Your task to perform on an android device: open app "Adobe Acrobat Reader" (install if not already installed) and go to login screen Image 0: 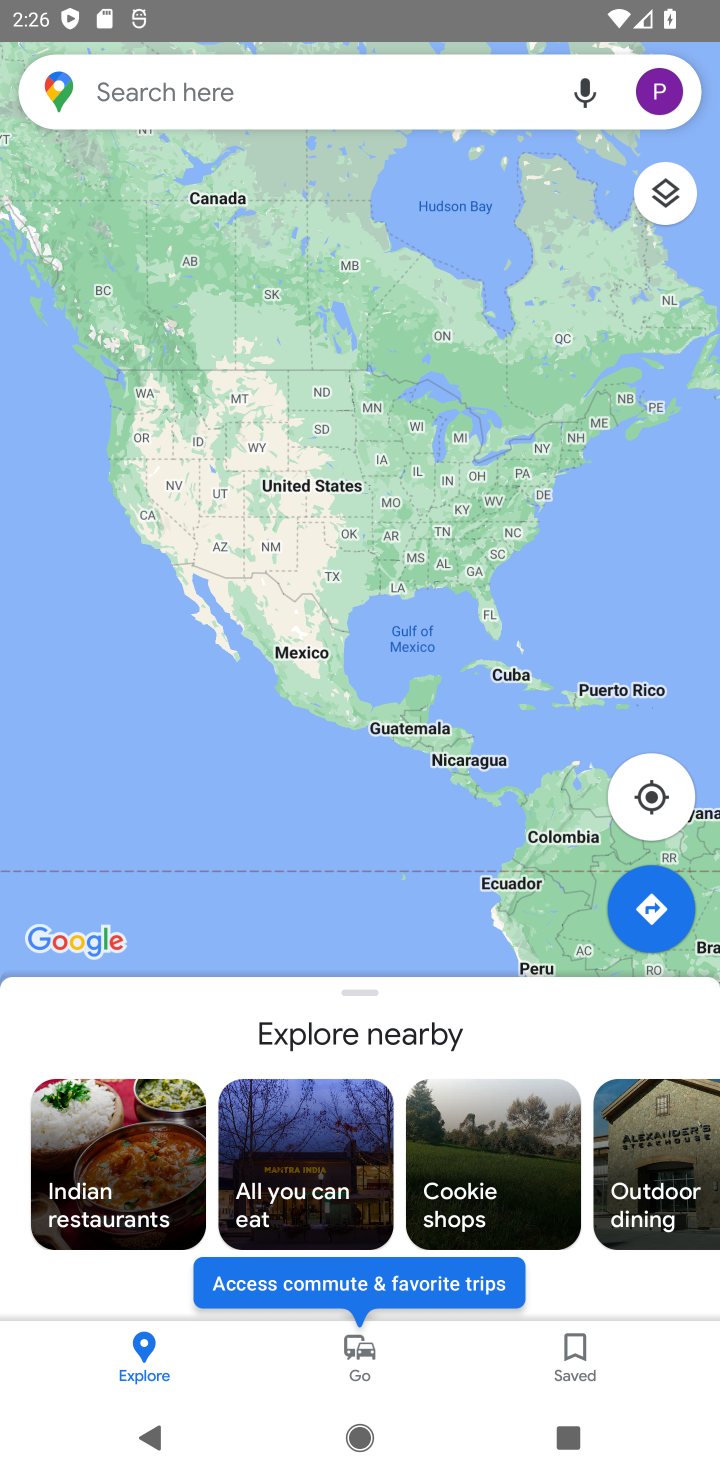
Step 0: press home button
Your task to perform on an android device: open app "Adobe Acrobat Reader" (install if not already installed) and go to login screen Image 1: 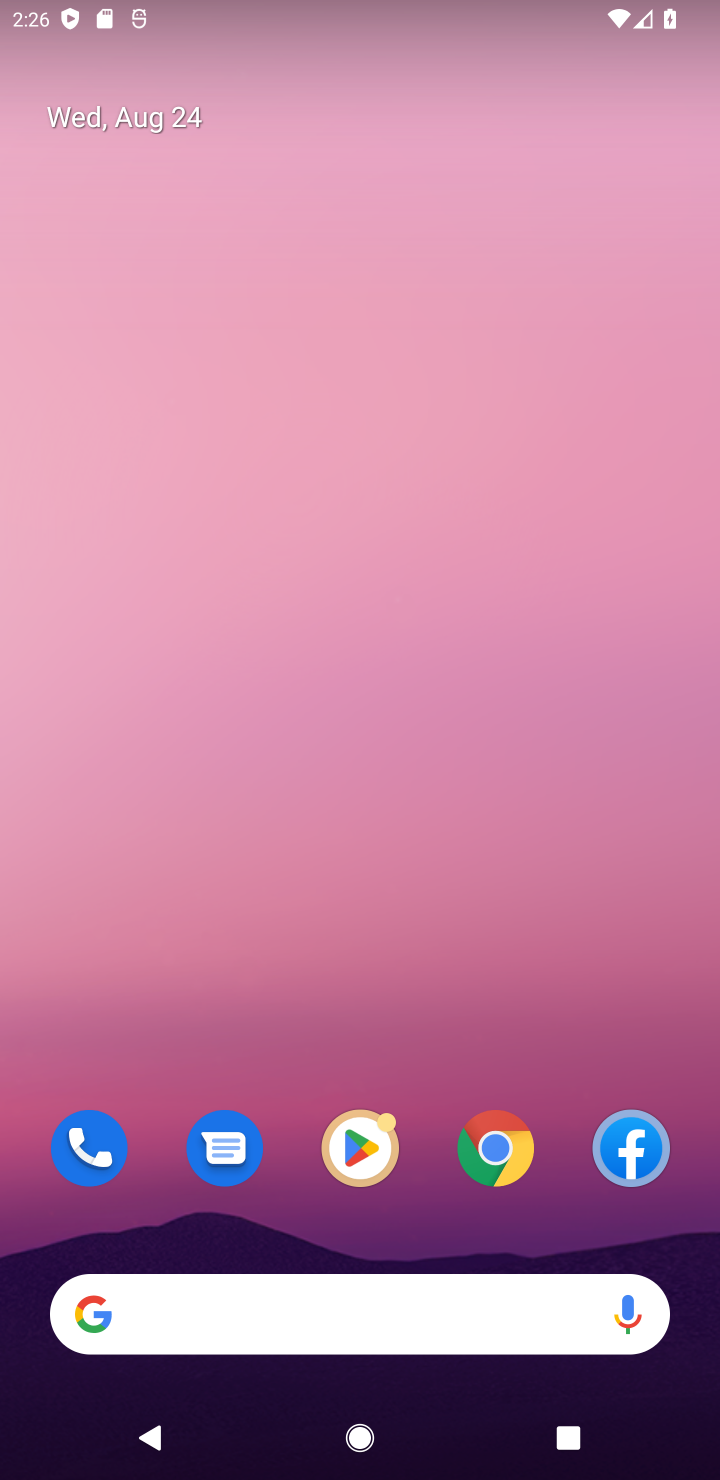
Step 1: click (324, 1178)
Your task to perform on an android device: open app "Adobe Acrobat Reader" (install if not already installed) and go to login screen Image 2: 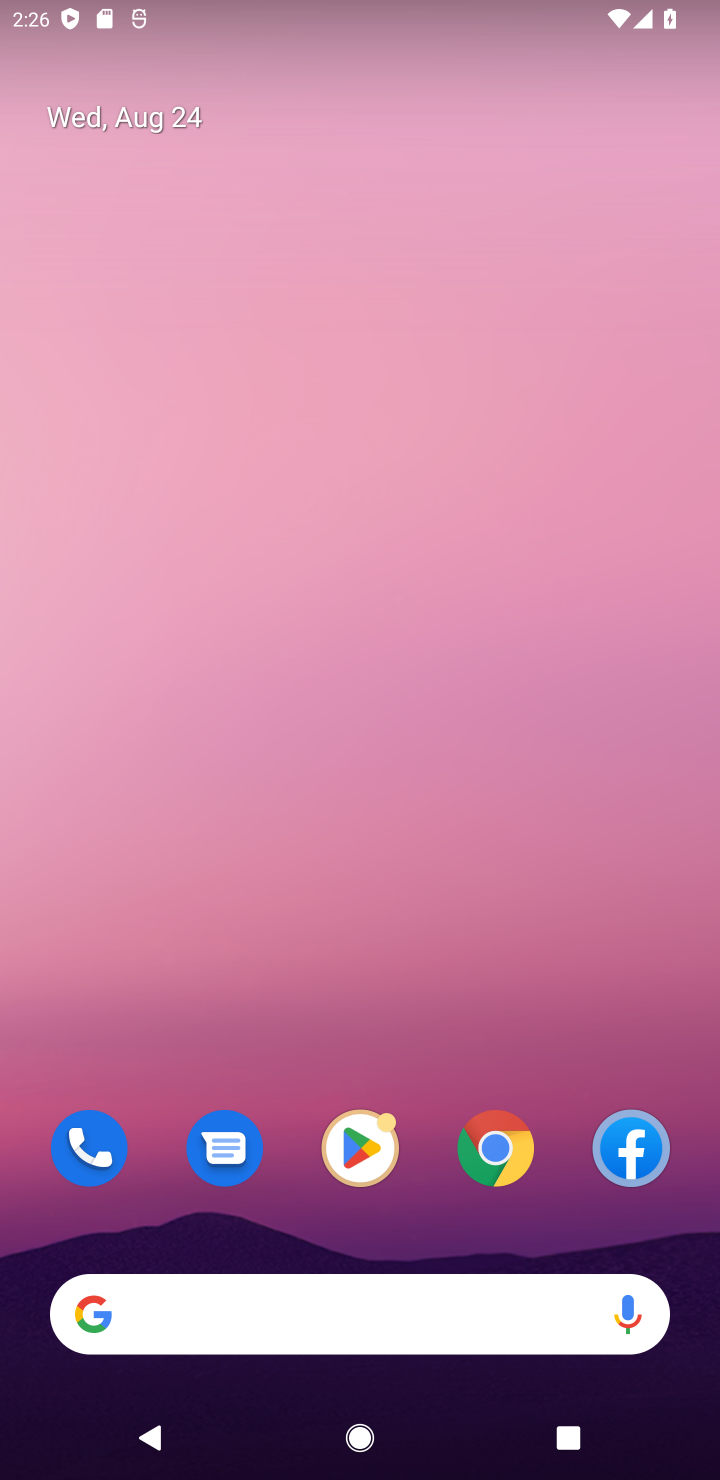
Step 2: click (361, 1103)
Your task to perform on an android device: open app "Adobe Acrobat Reader" (install if not already installed) and go to login screen Image 3: 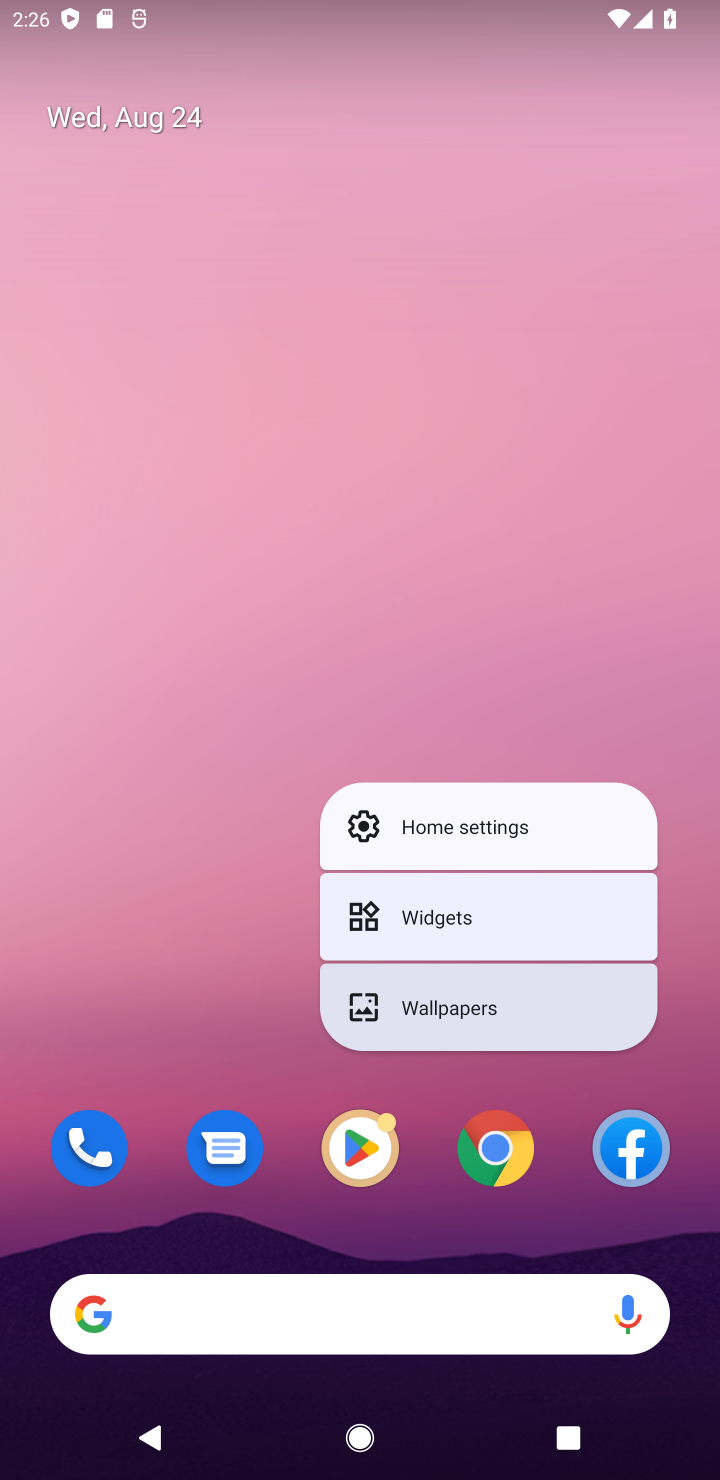
Step 3: click (361, 1142)
Your task to perform on an android device: open app "Adobe Acrobat Reader" (install if not already installed) and go to login screen Image 4: 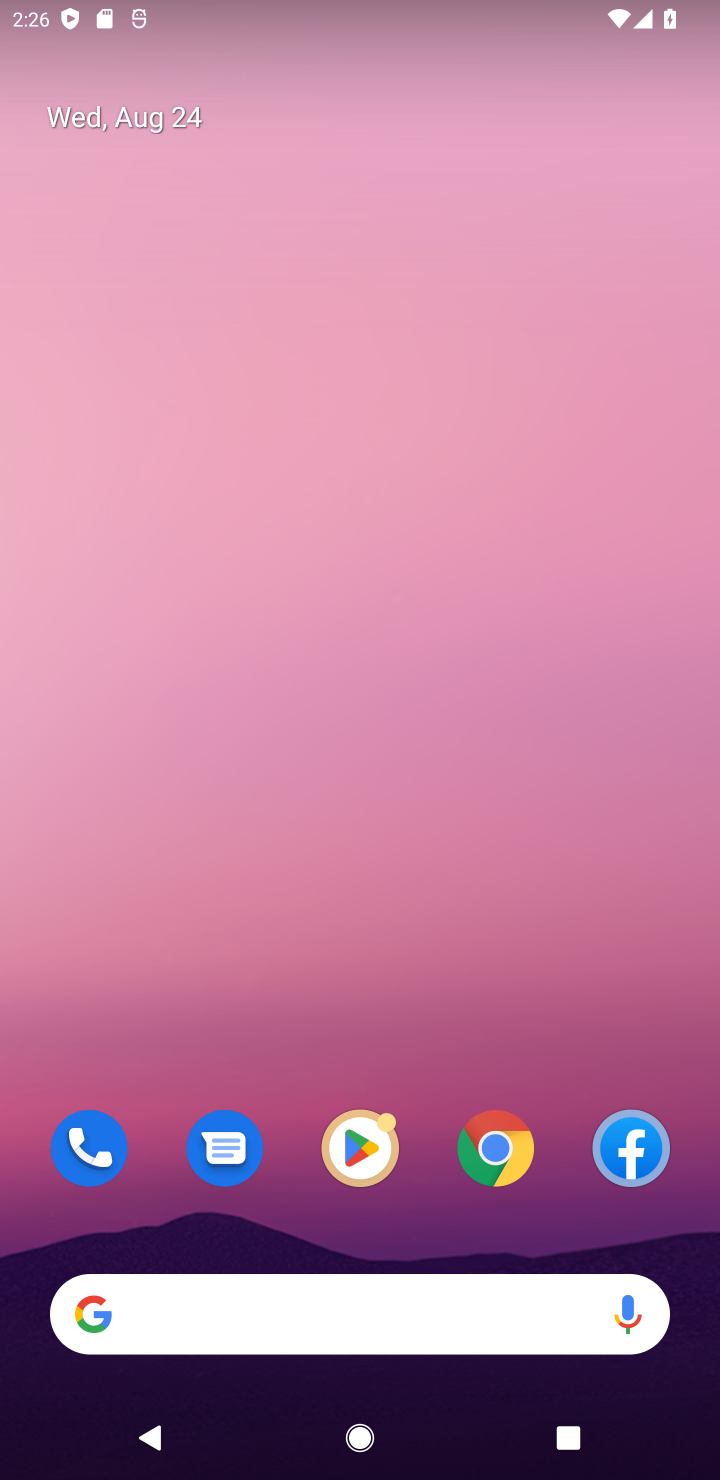
Step 4: click (361, 1142)
Your task to perform on an android device: open app "Adobe Acrobat Reader" (install if not already installed) and go to login screen Image 5: 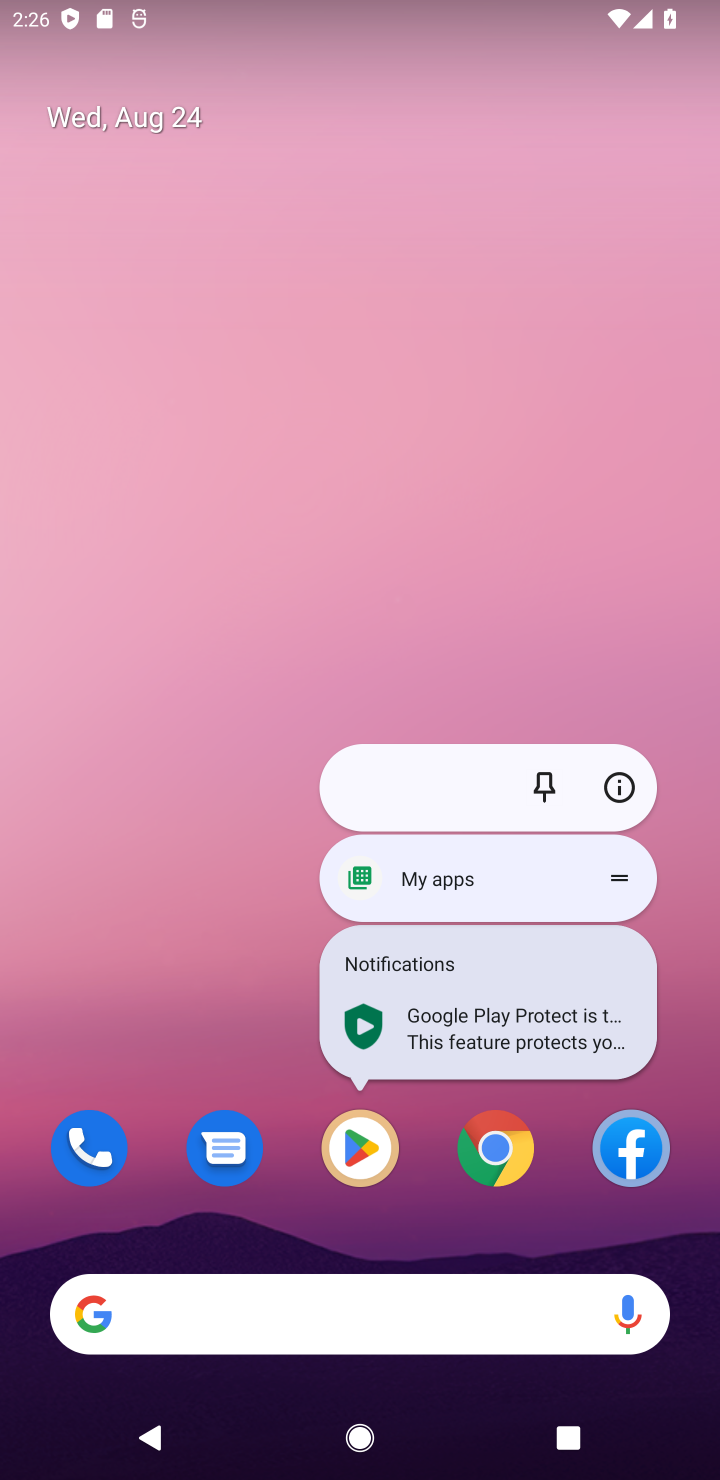
Step 5: click (361, 1142)
Your task to perform on an android device: open app "Adobe Acrobat Reader" (install if not already installed) and go to login screen Image 6: 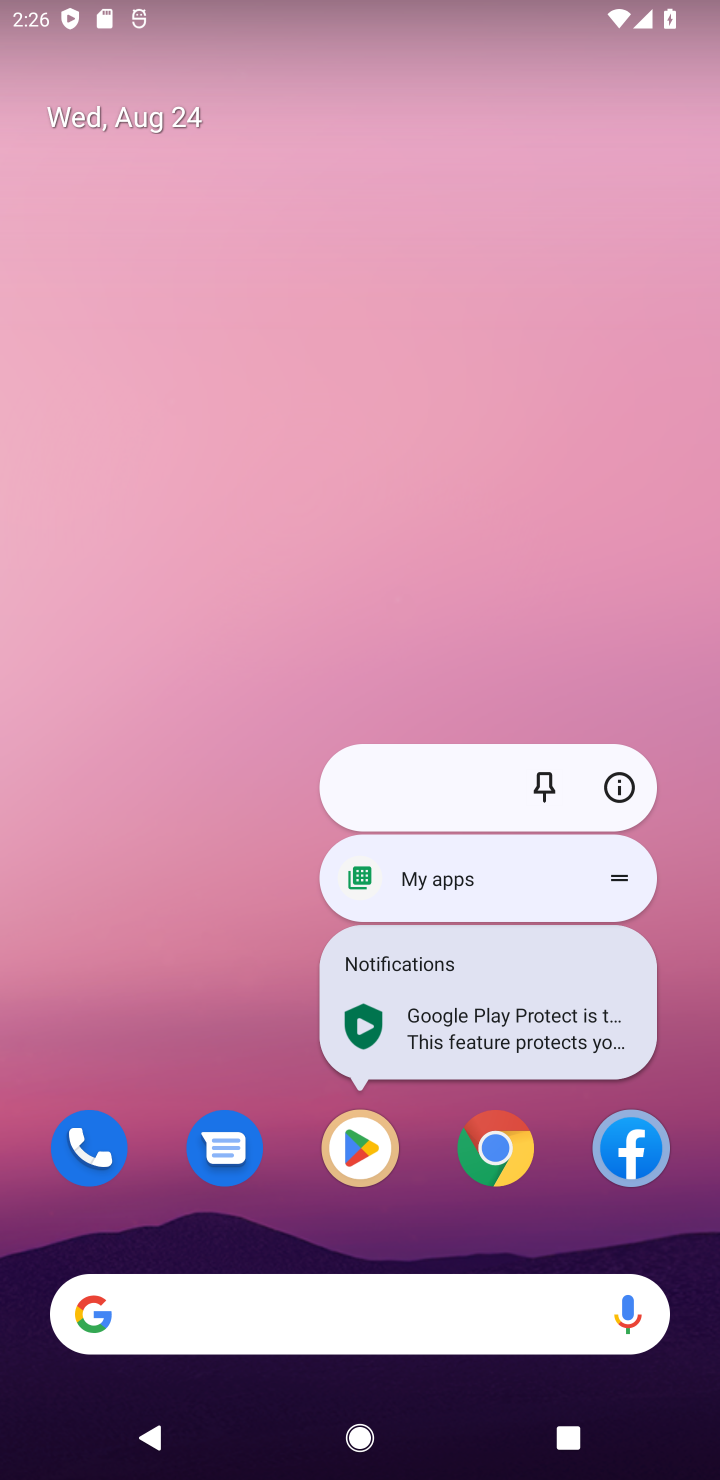
Step 6: click (84, 853)
Your task to perform on an android device: open app "Adobe Acrobat Reader" (install if not already installed) and go to login screen Image 7: 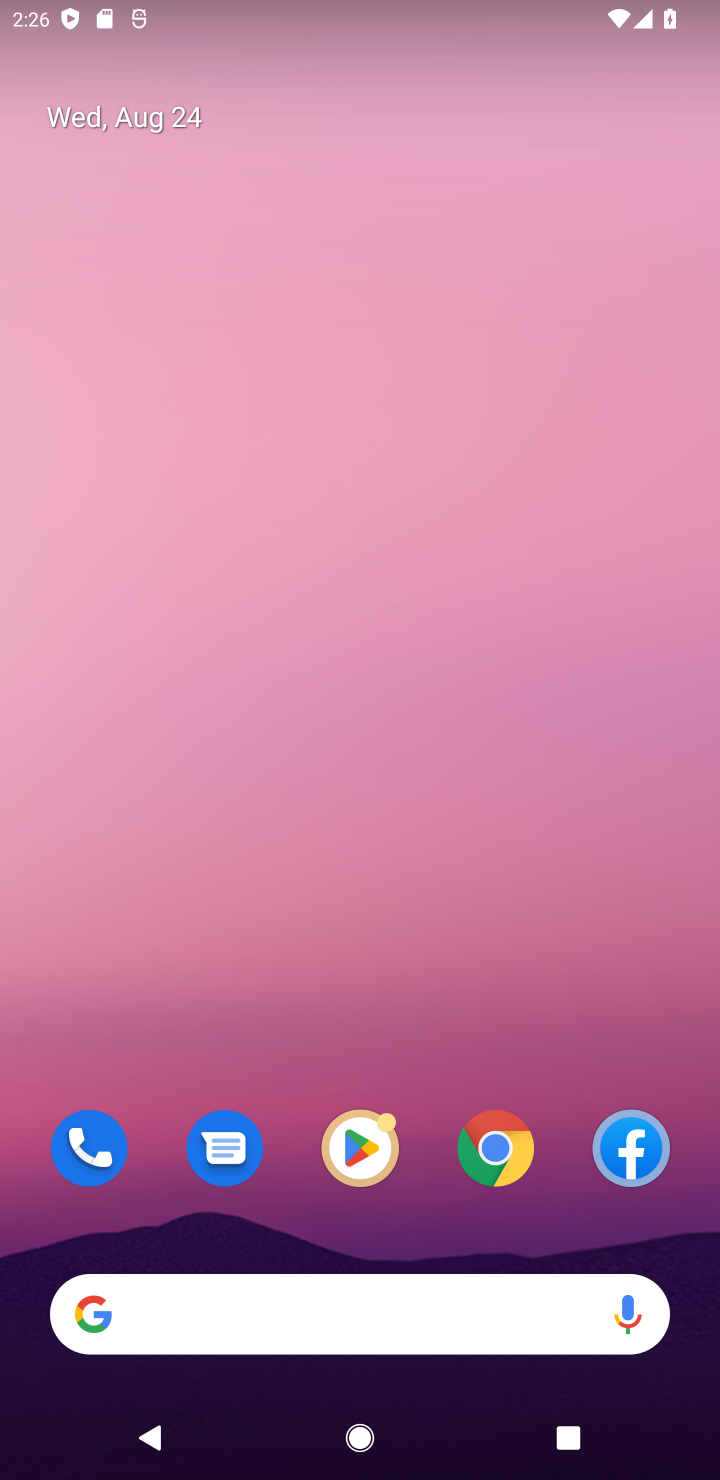
Step 7: drag from (269, 929) to (332, 241)
Your task to perform on an android device: open app "Adobe Acrobat Reader" (install if not already installed) and go to login screen Image 8: 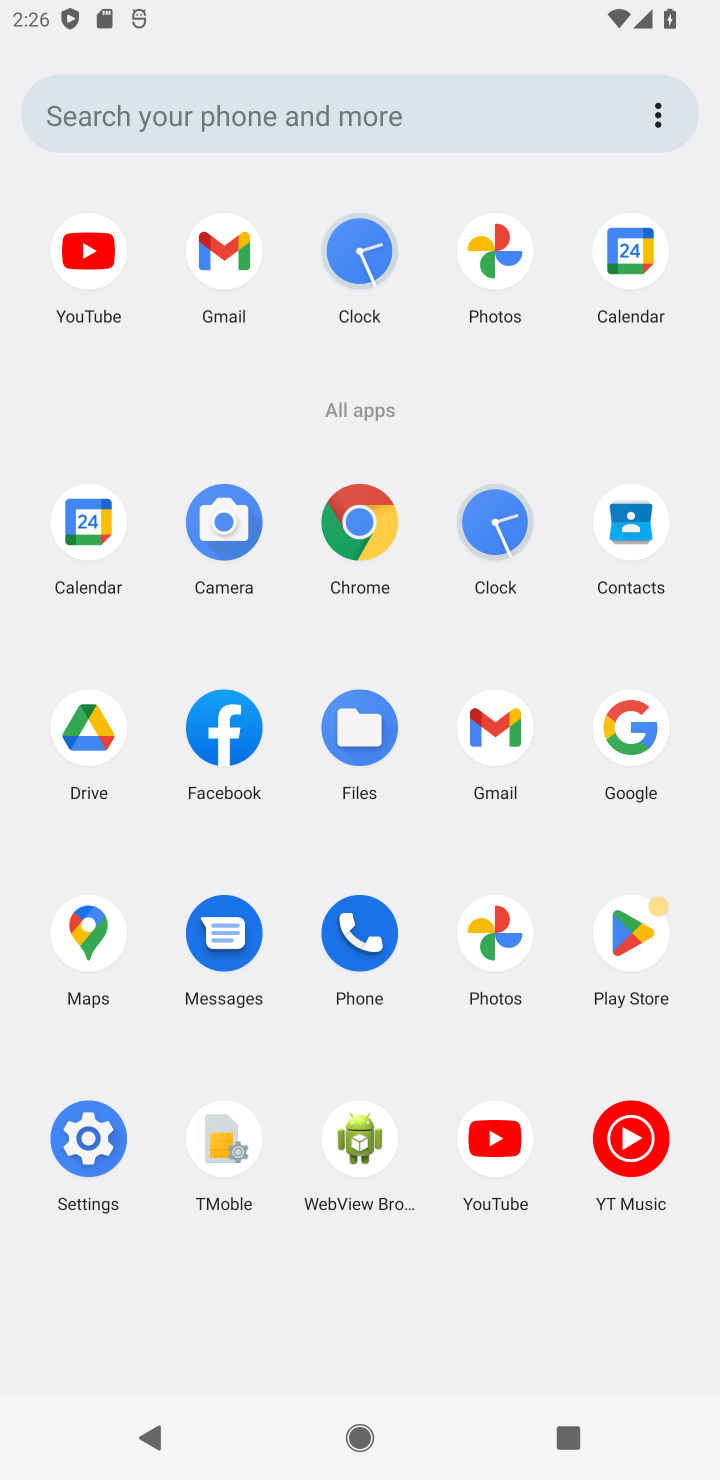
Step 8: click (612, 935)
Your task to perform on an android device: open app "Adobe Acrobat Reader" (install if not already installed) and go to login screen Image 9: 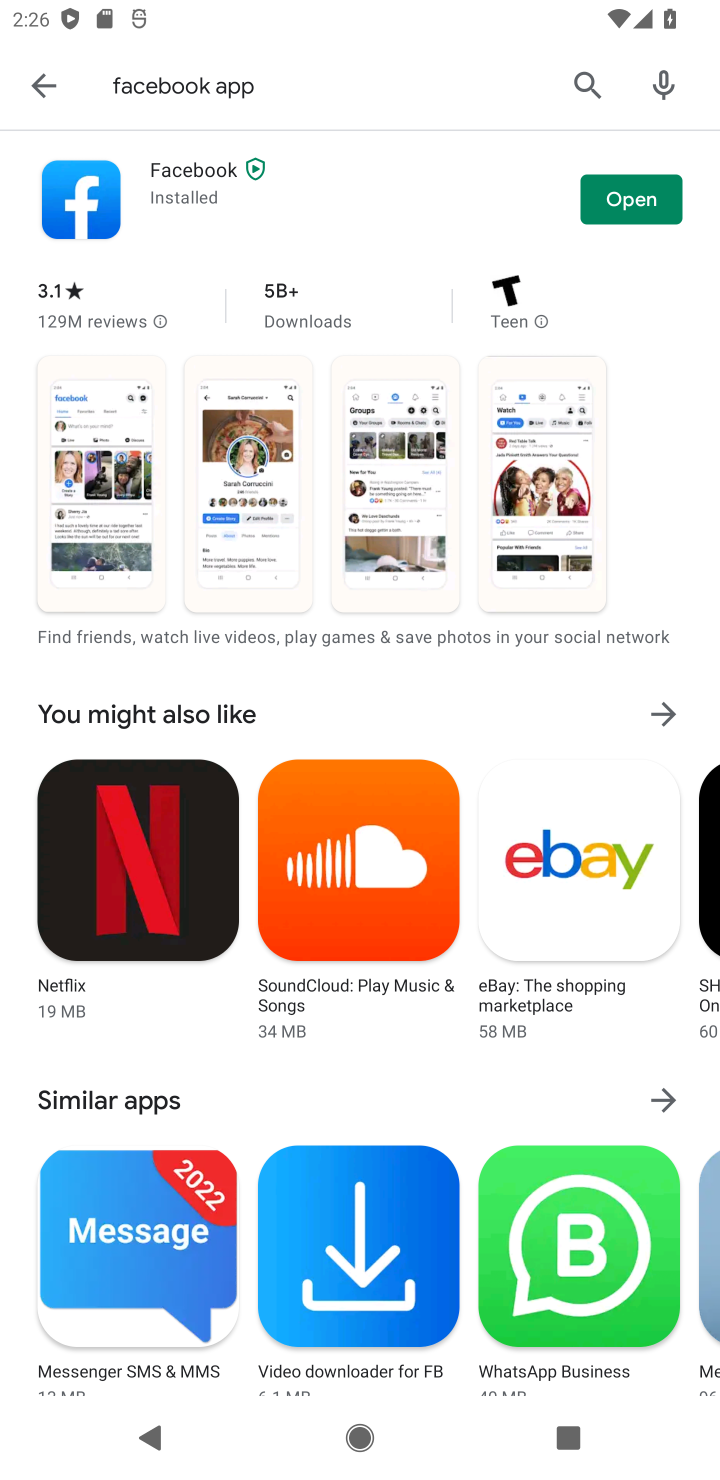
Step 9: click (39, 82)
Your task to perform on an android device: open app "Adobe Acrobat Reader" (install if not already installed) and go to login screen Image 10: 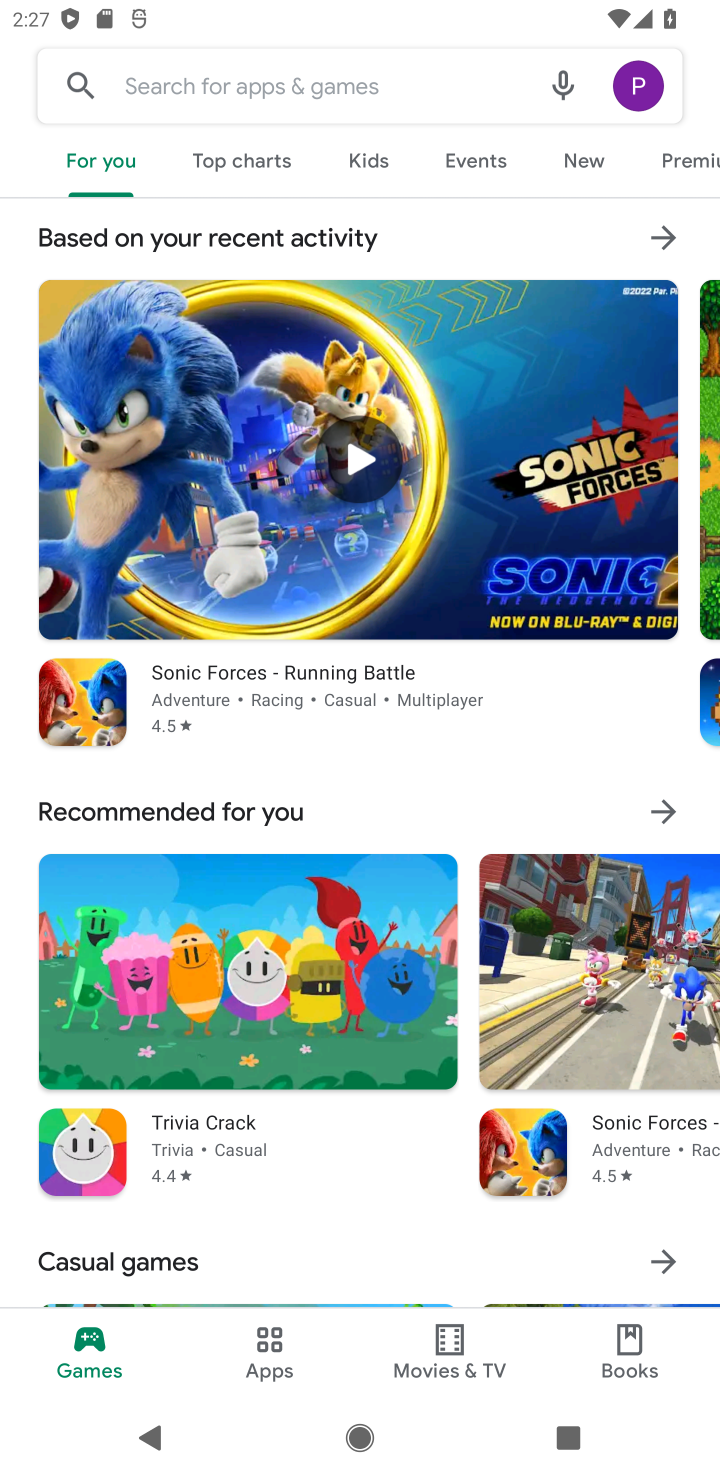
Step 10: click (210, 72)
Your task to perform on an android device: open app "Adobe Acrobat Reader" (install if not already installed) and go to login screen Image 11: 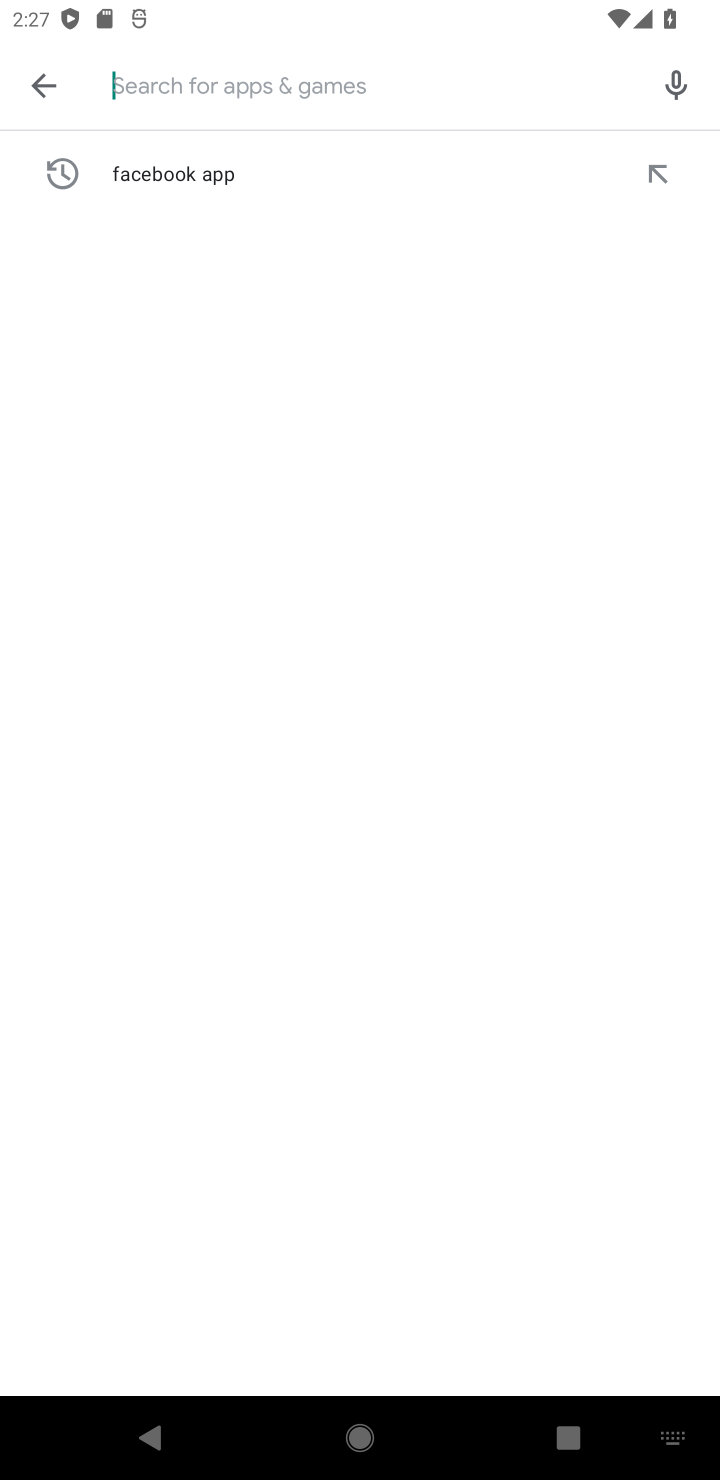
Step 11: type "Adobe Acrobat Reader "
Your task to perform on an android device: open app "Adobe Acrobat Reader" (install if not already installed) and go to login screen Image 12: 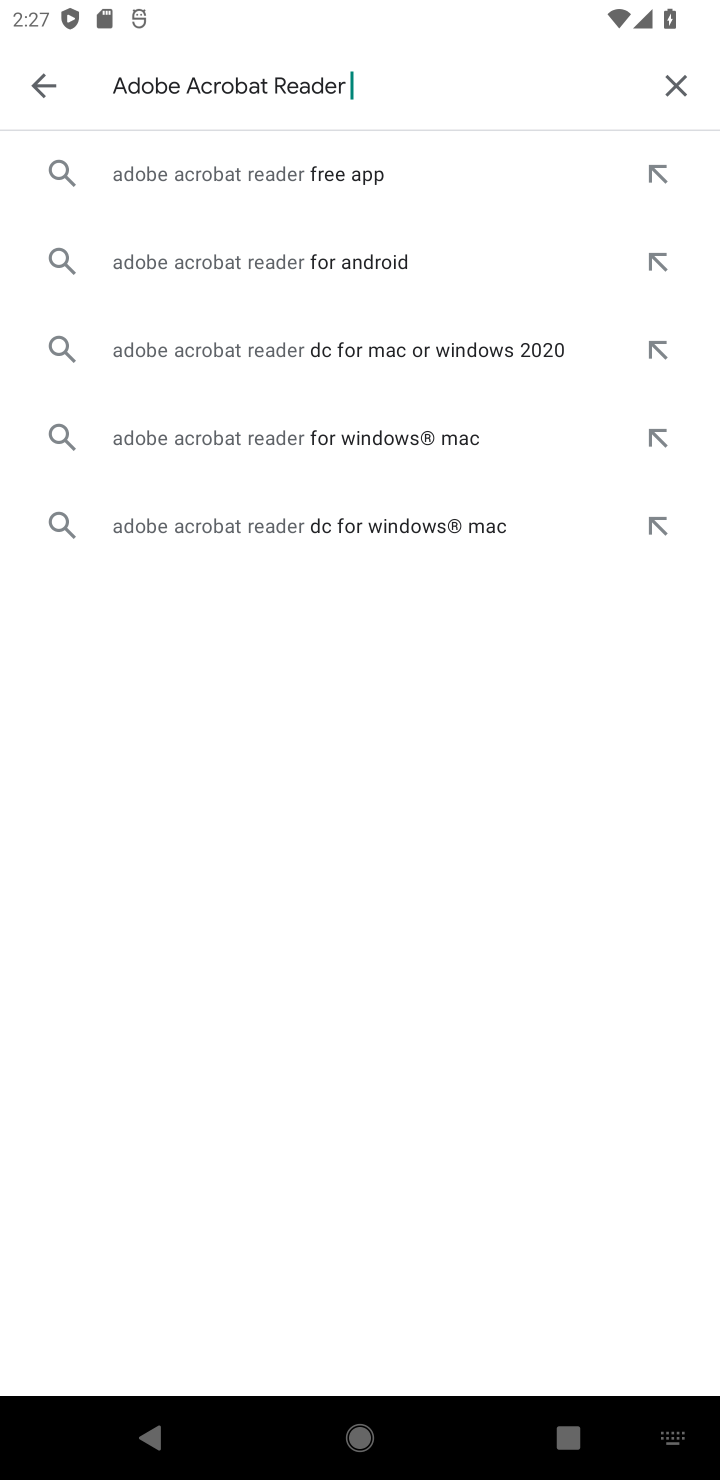
Step 12: click (182, 157)
Your task to perform on an android device: open app "Adobe Acrobat Reader" (install if not already installed) and go to login screen Image 13: 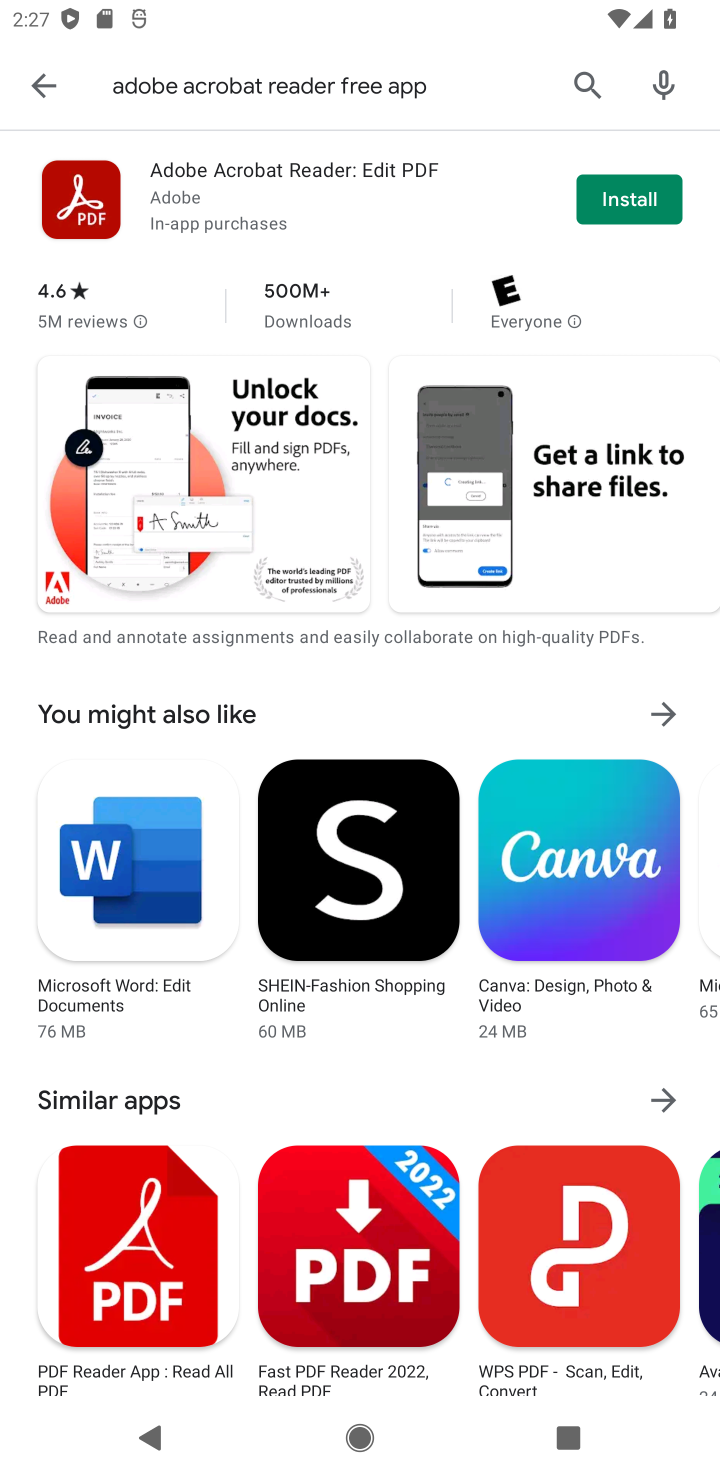
Step 13: click (663, 174)
Your task to perform on an android device: open app "Adobe Acrobat Reader" (install if not already installed) and go to login screen Image 14: 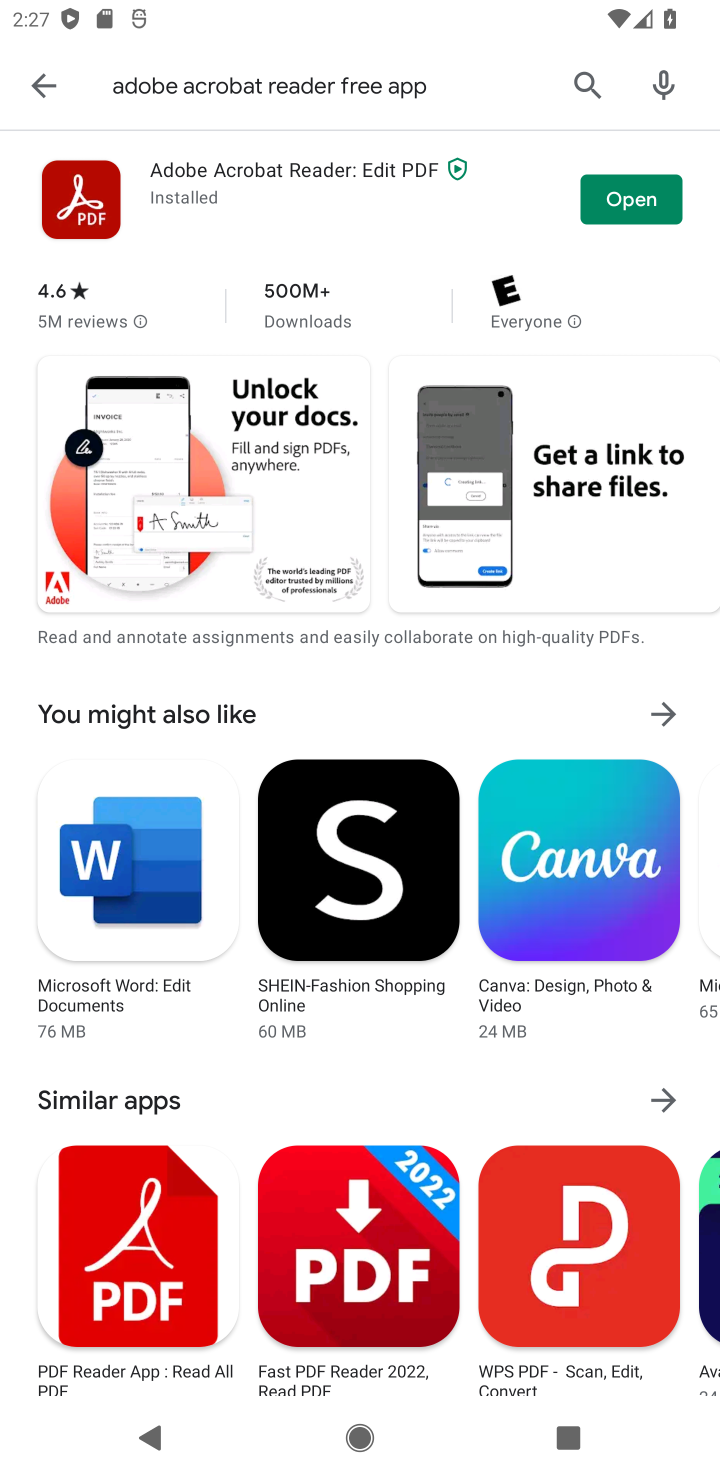
Step 14: click (603, 202)
Your task to perform on an android device: open app "Adobe Acrobat Reader" (install if not already installed) and go to login screen Image 15: 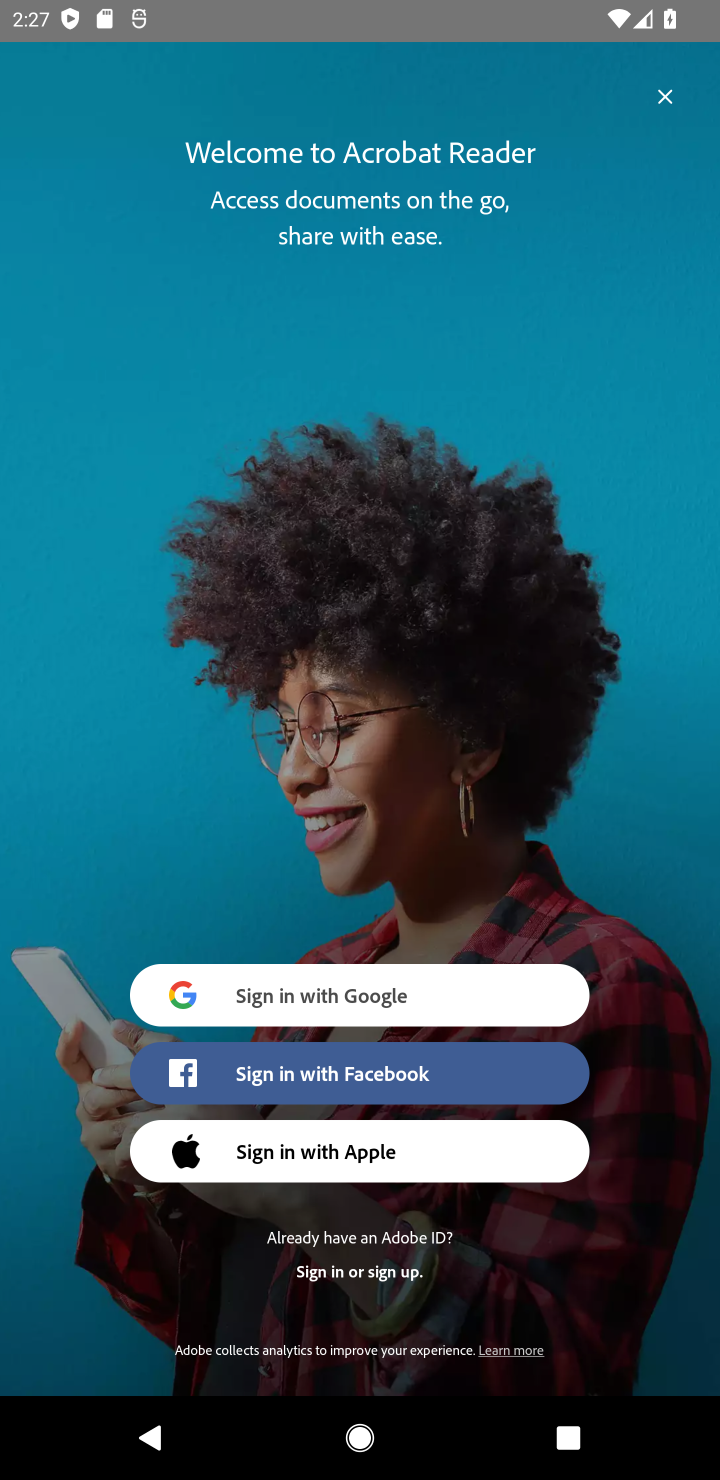
Step 15: task complete